Your task to perform on an android device: What is the recent news? Image 0: 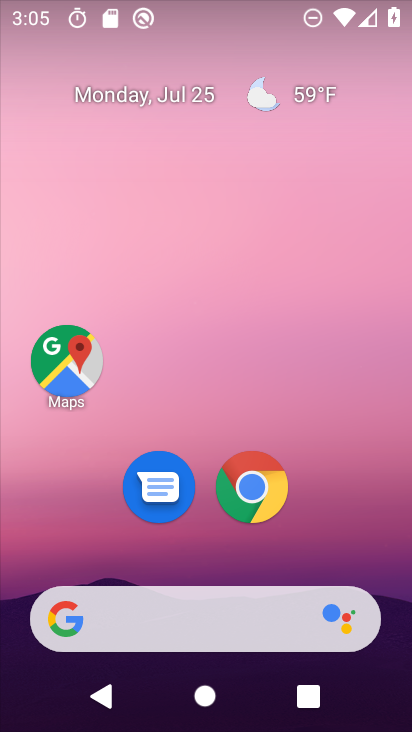
Step 0: click (182, 622)
Your task to perform on an android device: What is the recent news? Image 1: 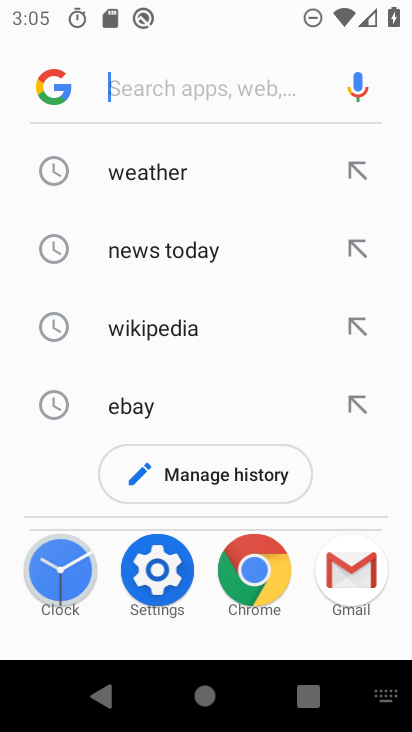
Step 1: click (145, 81)
Your task to perform on an android device: What is the recent news? Image 2: 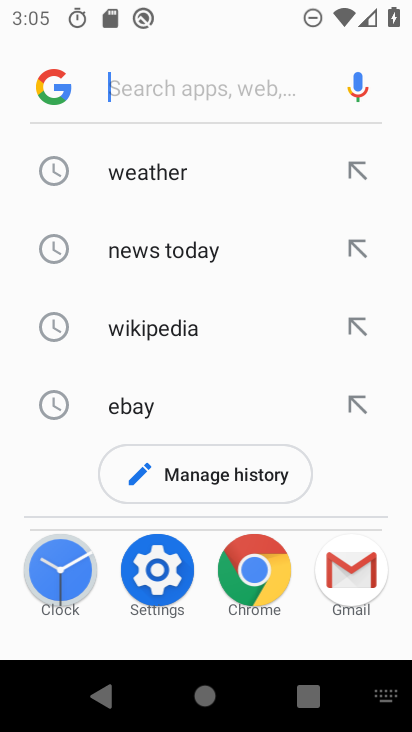
Step 2: type "recent news"
Your task to perform on an android device: What is the recent news? Image 3: 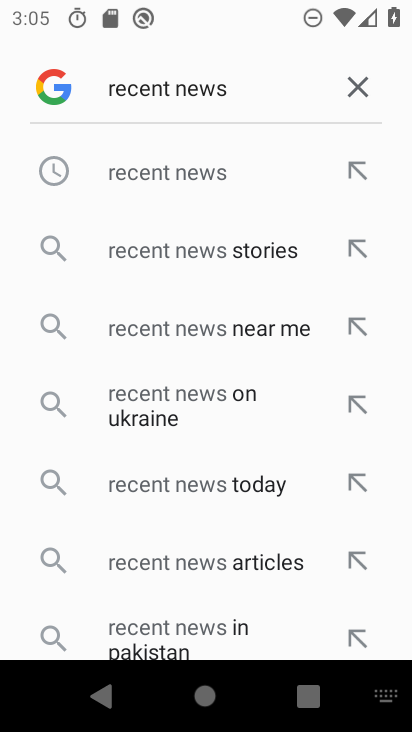
Step 3: click (162, 178)
Your task to perform on an android device: What is the recent news? Image 4: 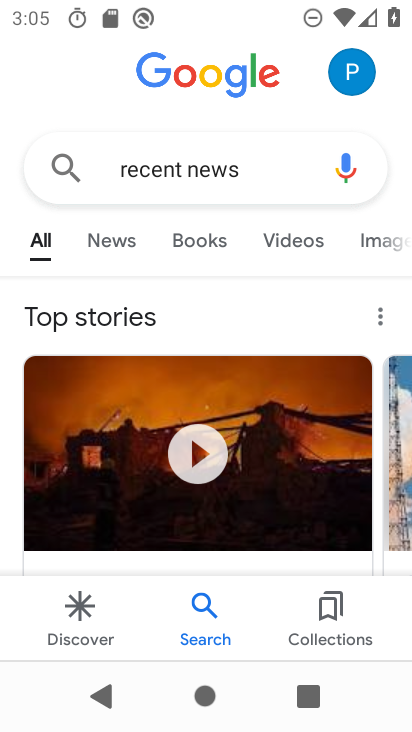
Step 4: task complete